Your task to perform on an android device: Open ESPN.com Image 0: 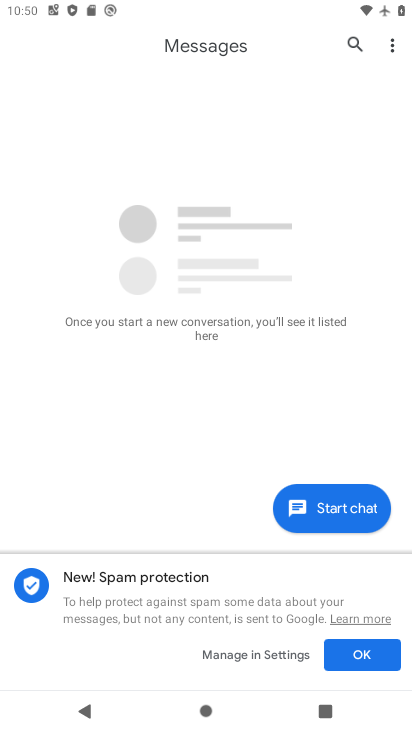
Step 0: press home button
Your task to perform on an android device: Open ESPN.com Image 1: 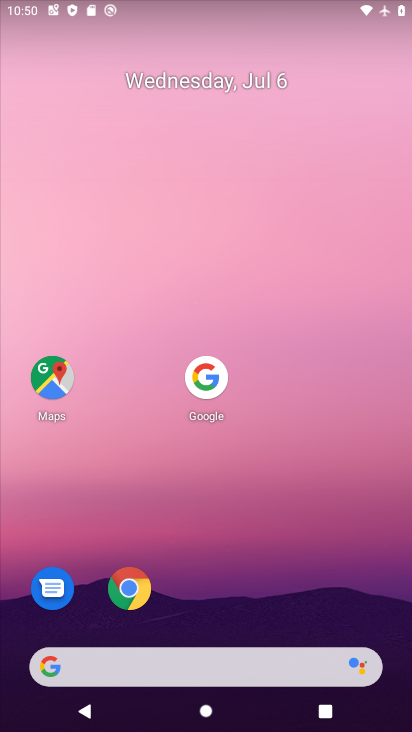
Step 1: click (134, 599)
Your task to perform on an android device: Open ESPN.com Image 2: 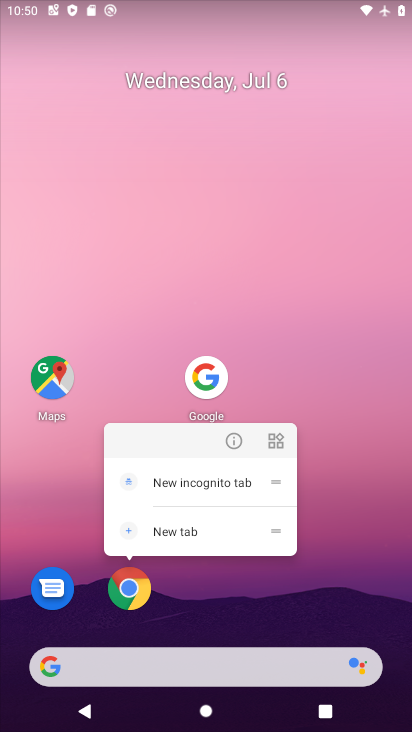
Step 2: click (131, 588)
Your task to perform on an android device: Open ESPN.com Image 3: 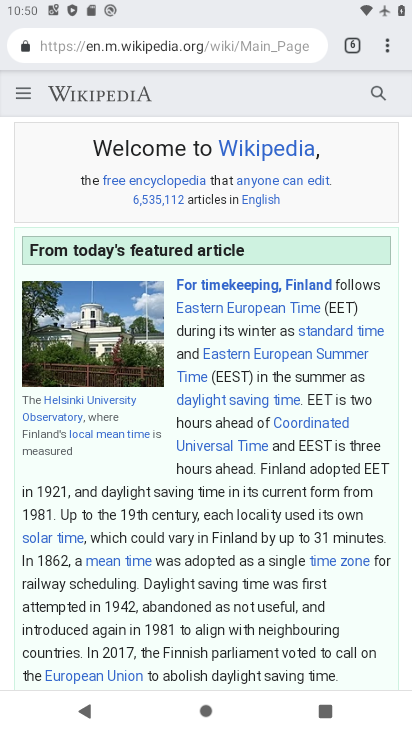
Step 3: click (380, 54)
Your task to perform on an android device: Open ESPN.com Image 4: 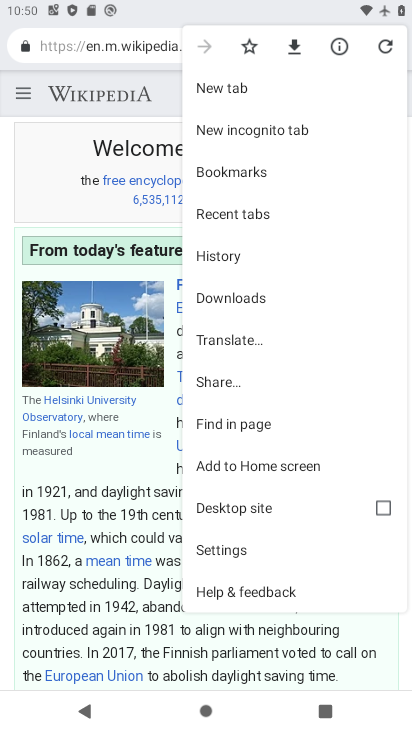
Step 4: click (243, 84)
Your task to perform on an android device: Open ESPN.com Image 5: 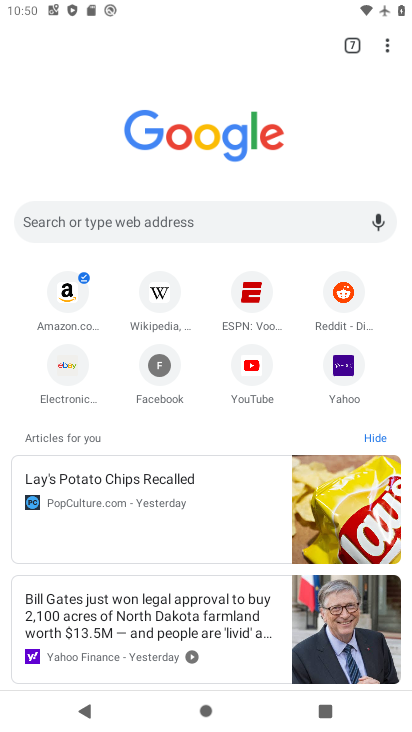
Step 5: click (244, 300)
Your task to perform on an android device: Open ESPN.com Image 6: 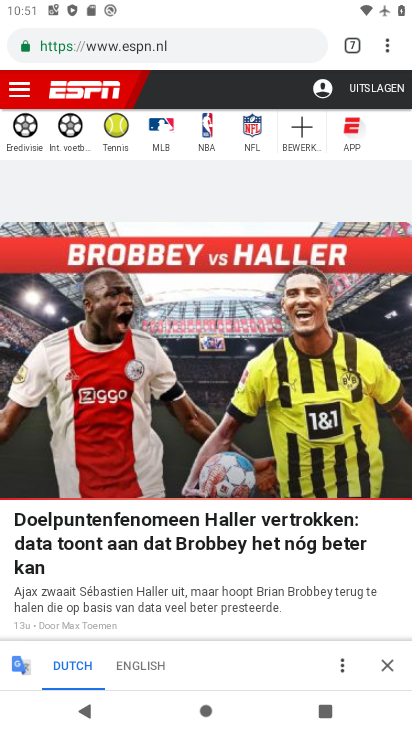
Step 6: task complete